Your task to perform on an android device: Clear all items from cart on ebay.com. Search for "lenovo thinkpad" on ebay.com, select the first entry, and add it to the cart. Image 0: 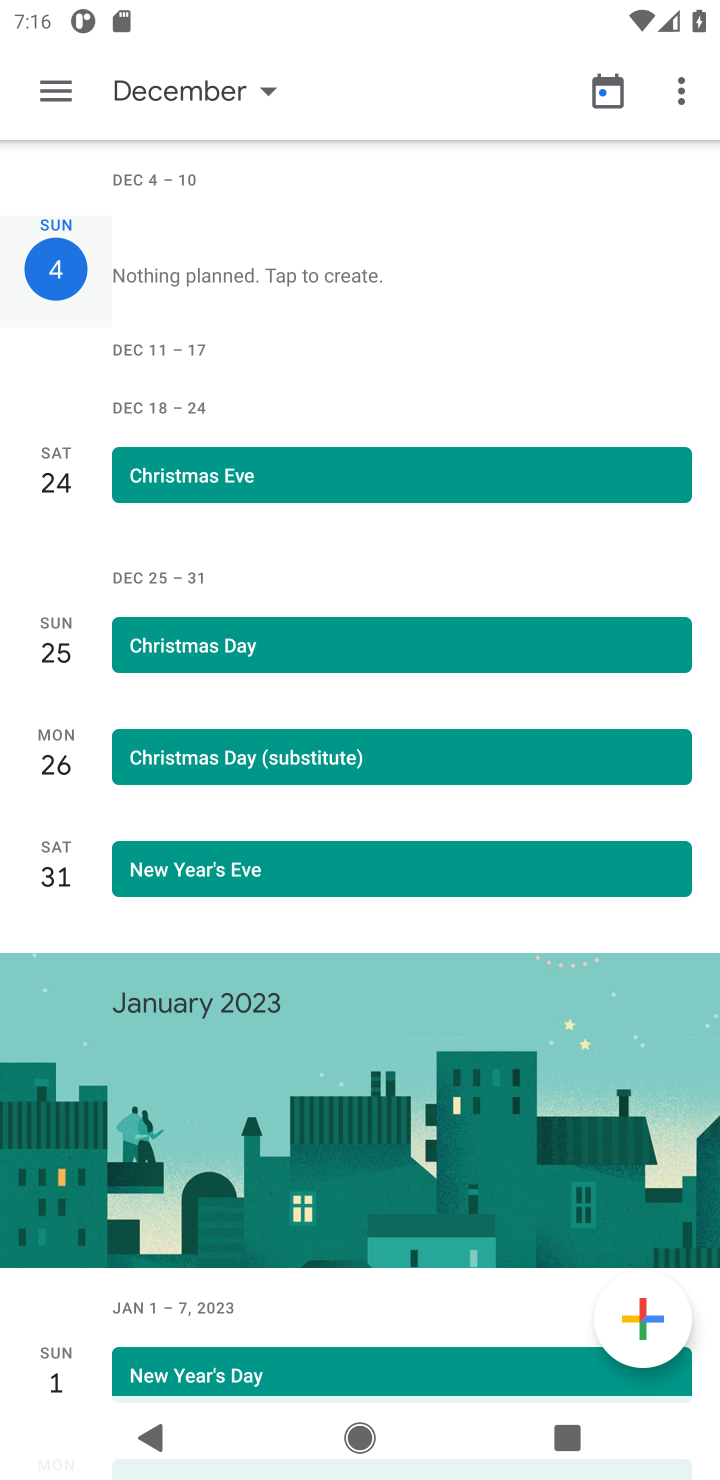
Step 0: press home button
Your task to perform on an android device: Clear all items from cart on ebay.com. Search for "lenovo thinkpad" on ebay.com, select the first entry, and add it to the cart. Image 1: 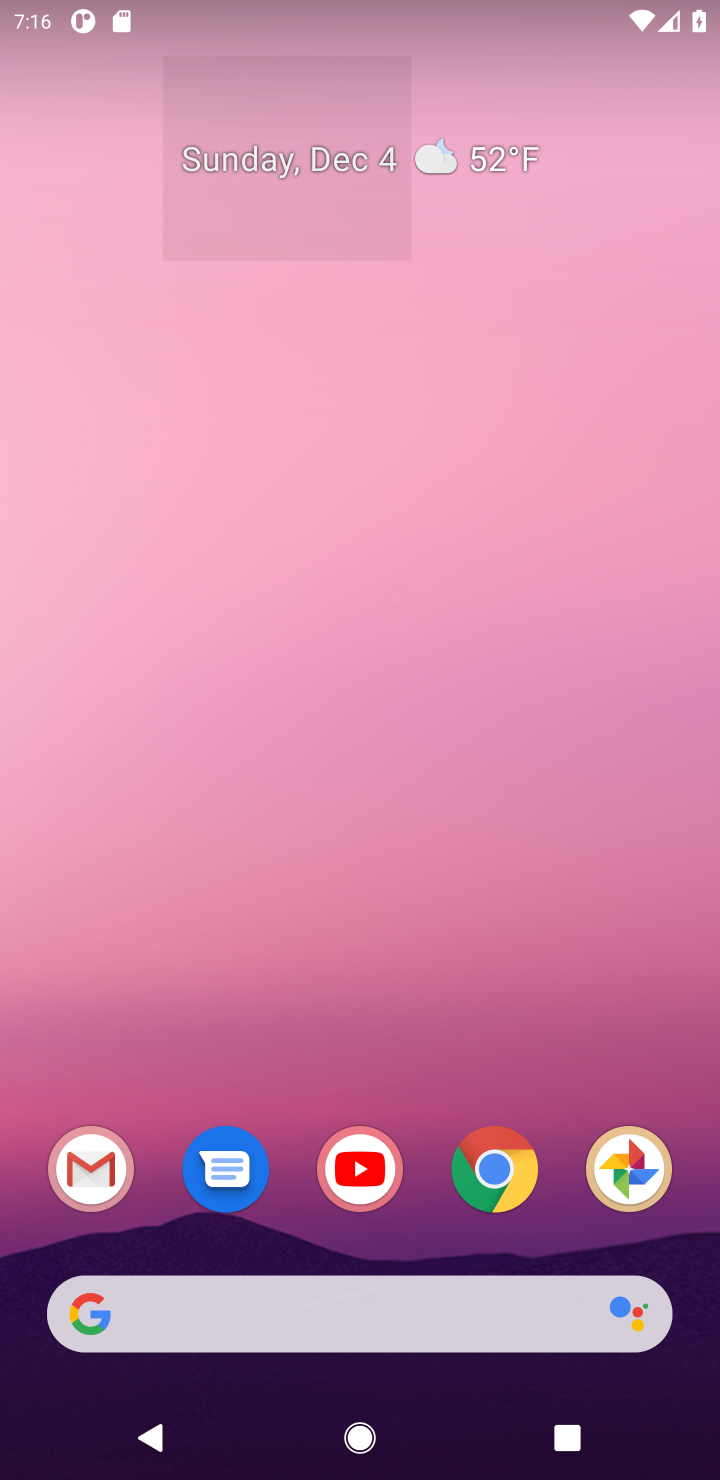
Step 1: click (488, 1177)
Your task to perform on an android device: Clear all items from cart on ebay.com. Search for "lenovo thinkpad" on ebay.com, select the first entry, and add it to the cart. Image 2: 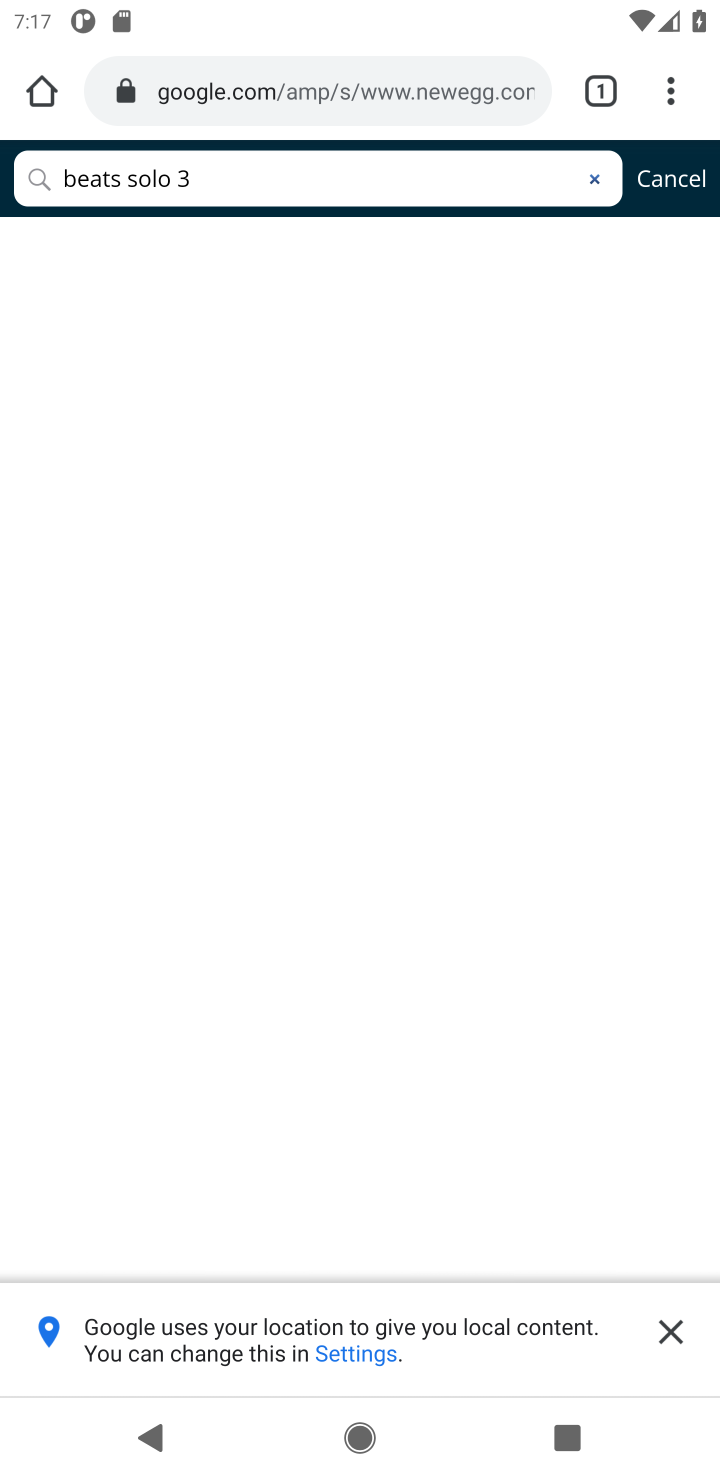
Step 2: click (431, 92)
Your task to perform on an android device: Clear all items from cart on ebay.com. Search for "lenovo thinkpad" on ebay.com, select the first entry, and add it to the cart. Image 3: 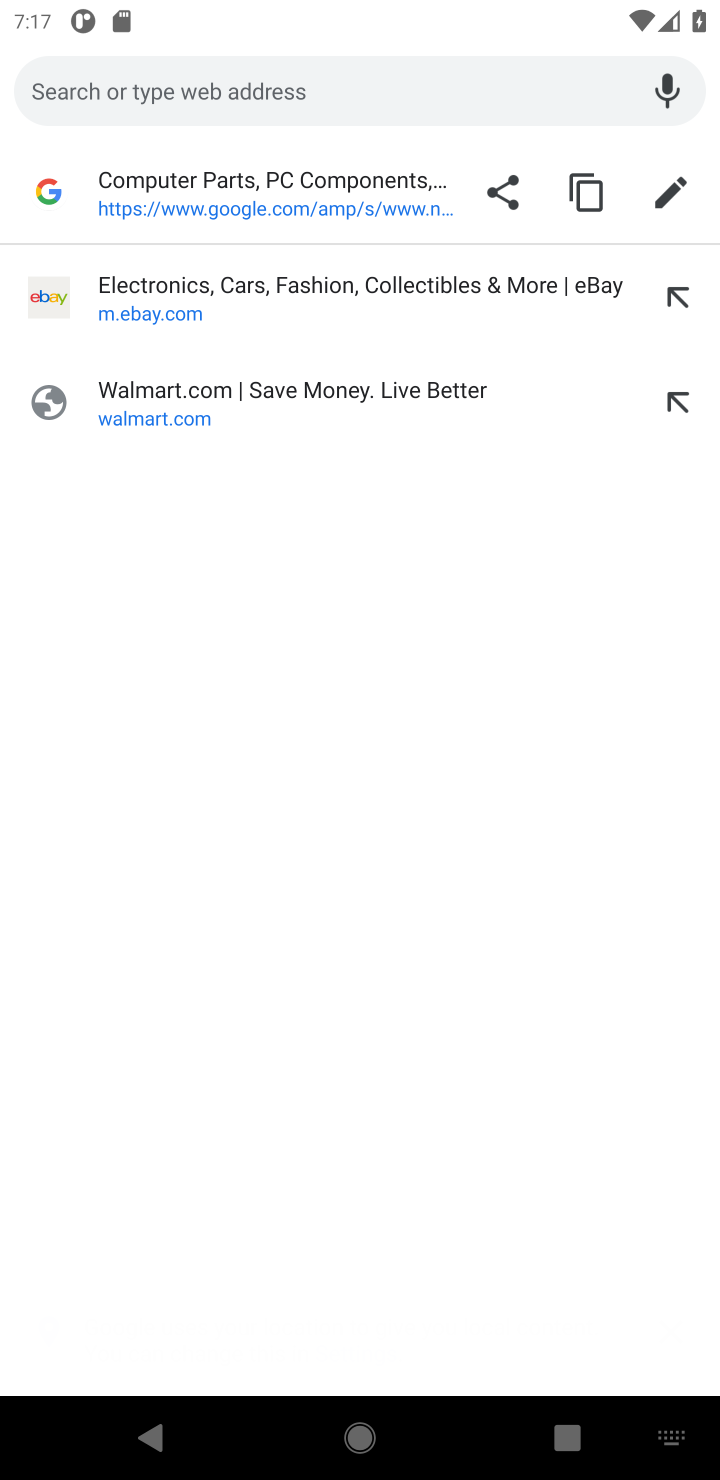
Step 3: click (233, 316)
Your task to perform on an android device: Clear all items from cart on ebay.com. Search for "lenovo thinkpad" on ebay.com, select the first entry, and add it to the cart. Image 4: 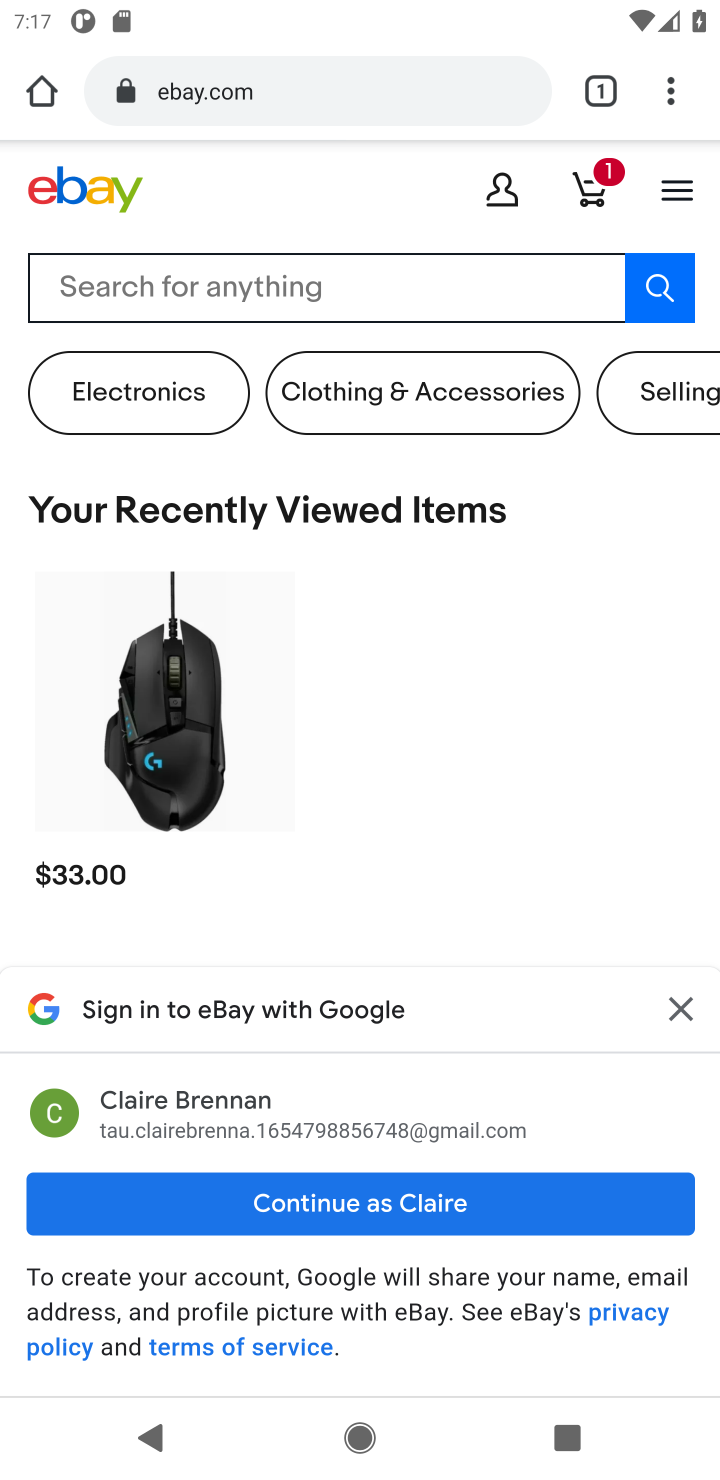
Step 4: click (599, 183)
Your task to perform on an android device: Clear all items from cart on ebay.com. Search for "lenovo thinkpad" on ebay.com, select the first entry, and add it to the cart. Image 5: 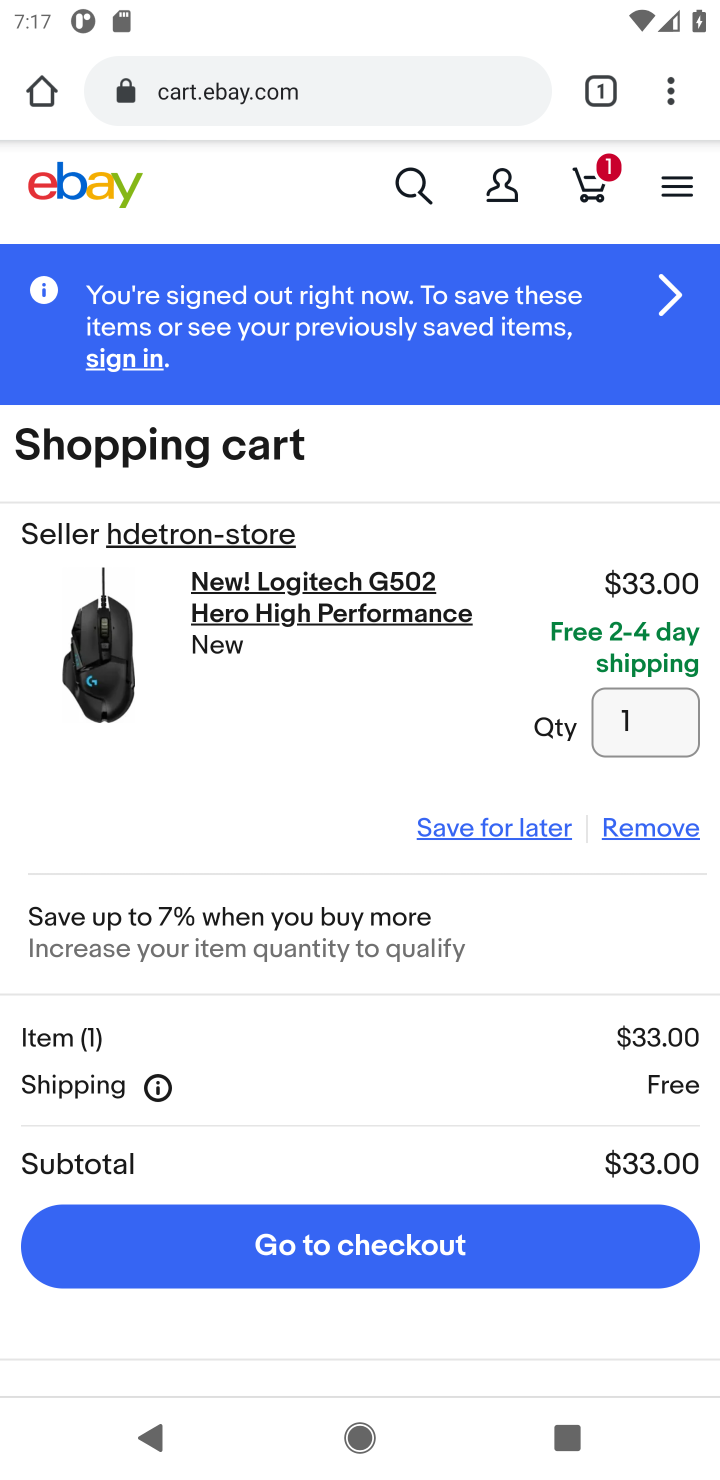
Step 5: click (625, 837)
Your task to perform on an android device: Clear all items from cart on ebay.com. Search for "lenovo thinkpad" on ebay.com, select the first entry, and add it to the cart. Image 6: 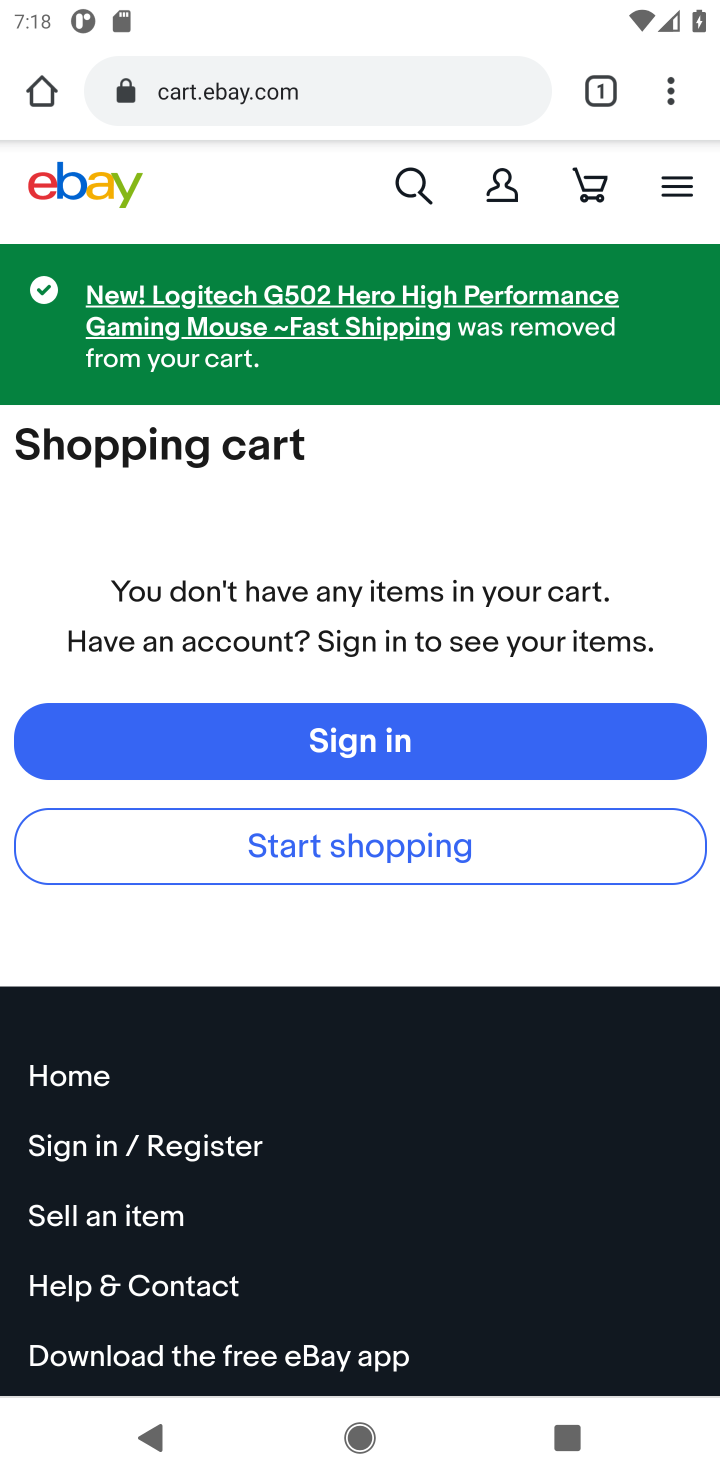
Step 6: click (66, 188)
Your task to perform on an android device: Clear all items from cart on ebay.com. Search for "lenovo thinkpad" on ebay.com, select the first entry, and add it to the cart. Image 7: 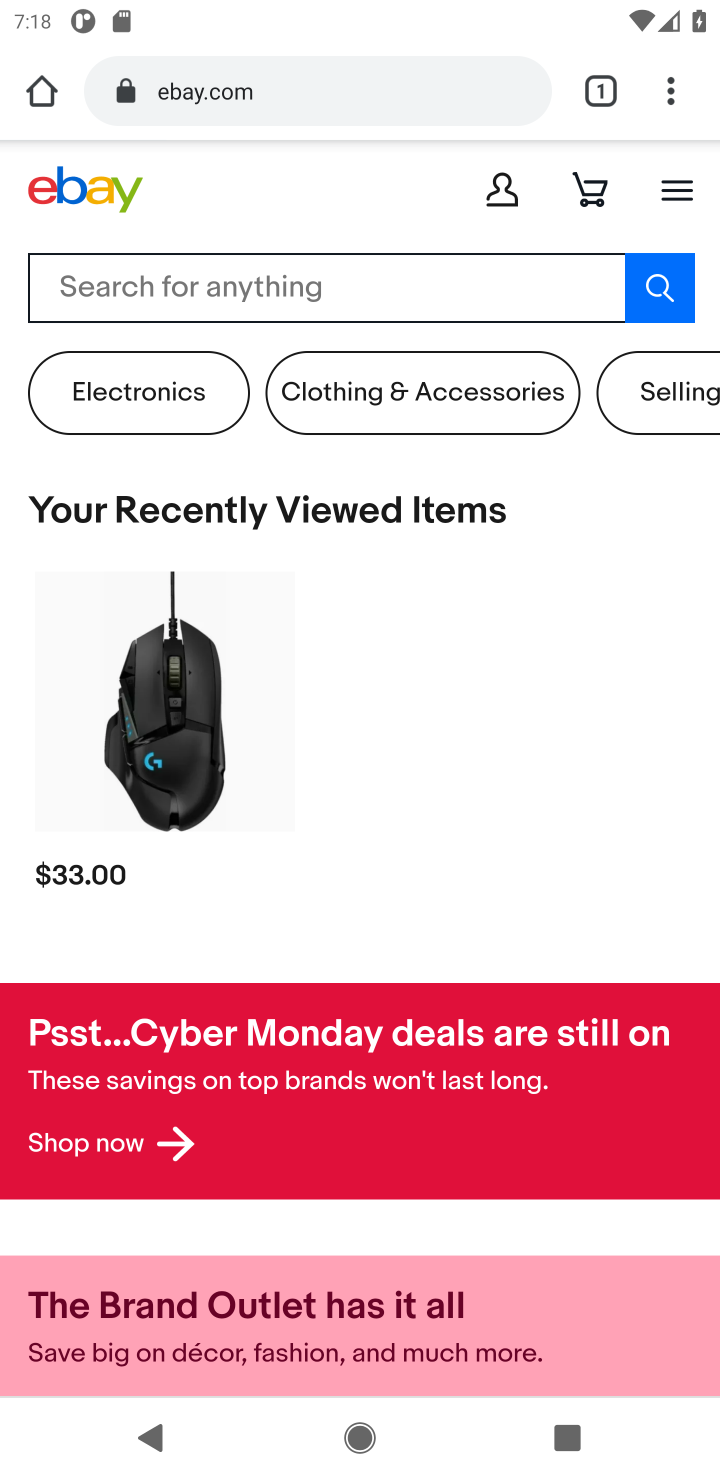
Step 7: click (364, 277)
Your task to perform on an android device: Clear all items from cart on ebay.com. Search for "lenovo thinkpad" on ebay.com, select the first entry, and add it to the cart. Image 8: 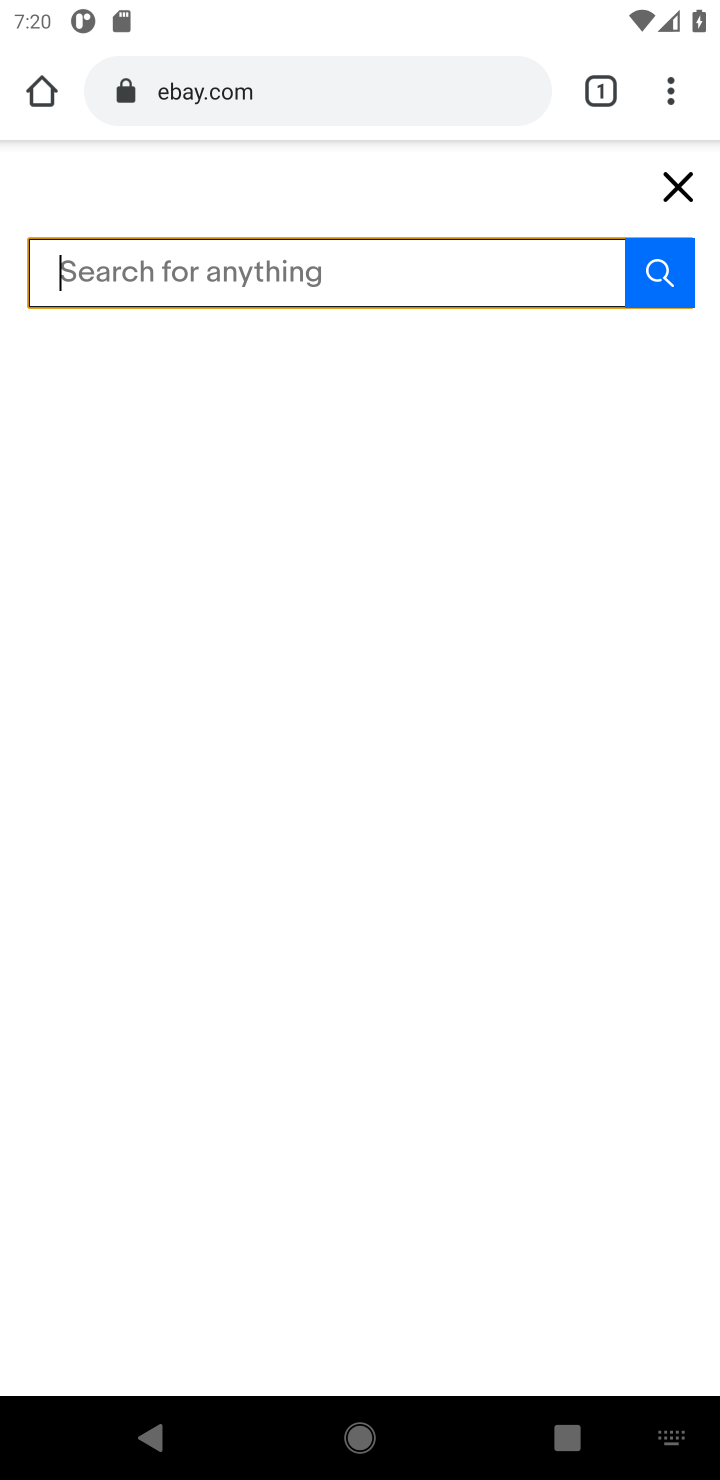
Step 8: type "lenovo thinkpad"
Your task to perform on an android device: Clear all items from cart on ebay.com. Search for "lenovo thinkpad" on ebay.com, select the first entry, and add it to the cart. Image 9: 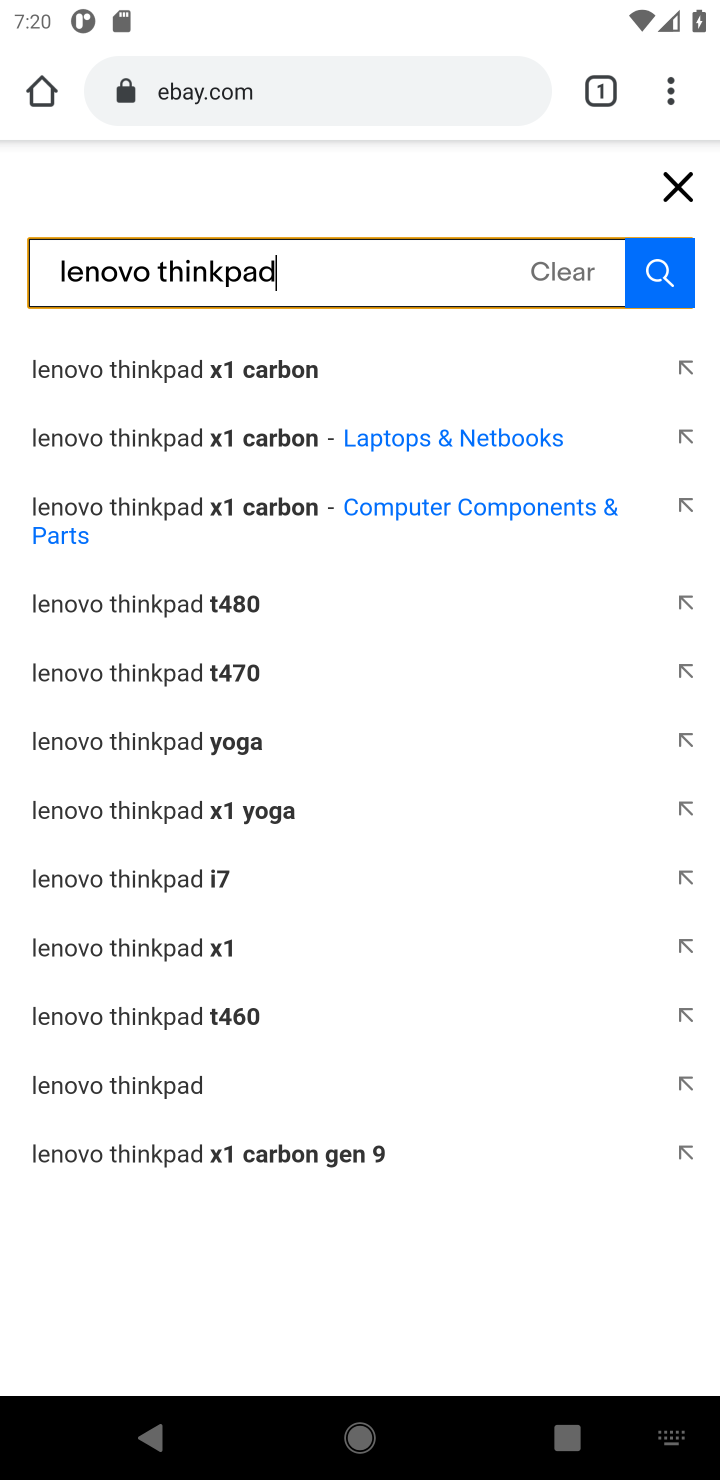
Step 9: click (169, 382)
Your task to perform on an android device: Clear all items from cart on ebay.com. Search for "lenovo thinkpad" on ebay.com, select the first entry, and add it to the cart. Image 10: 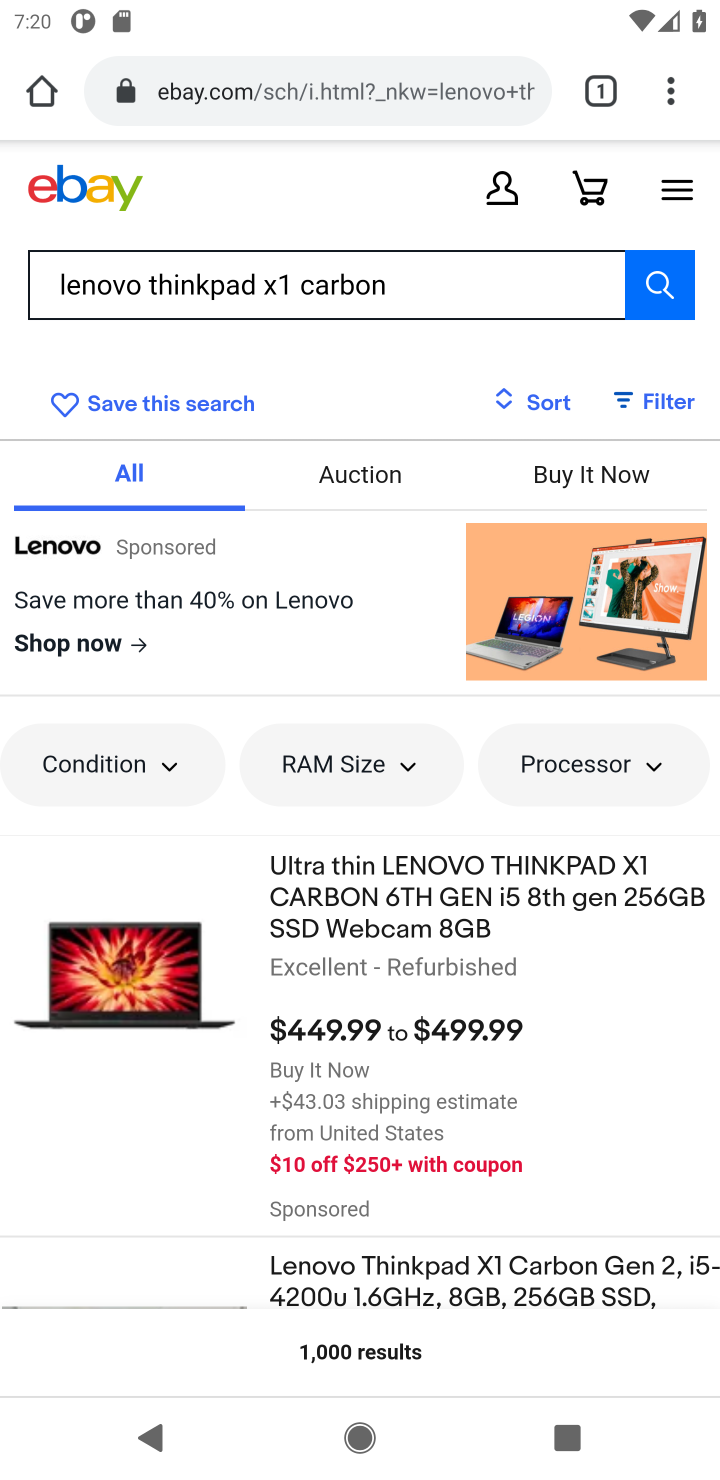
Step 10: click (419, 946)
Your task to perform on an android device: Clear all items from cart on ebay.com. Search for "lenovo thinkpad" on ebay.com, select the first entry, and add it to the cart. Image 11: 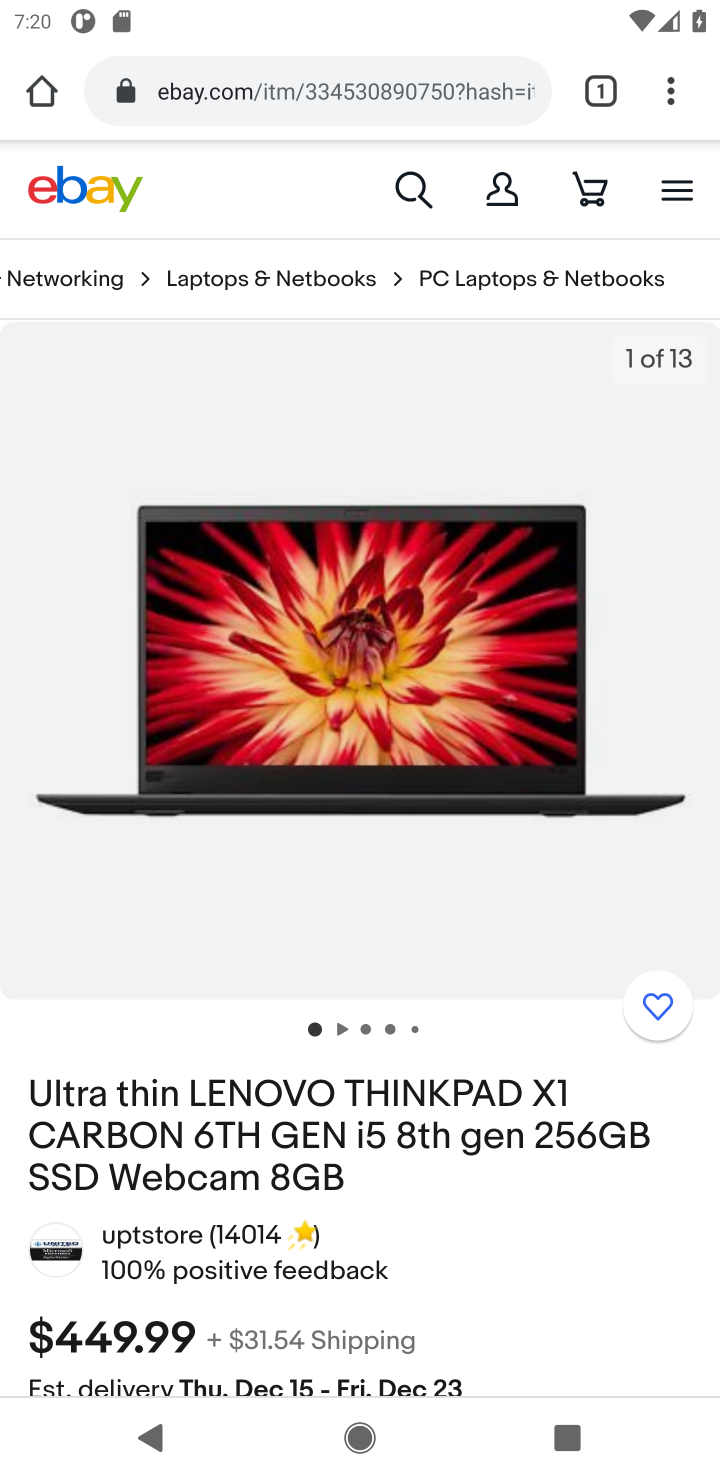
Step 11: drag from (440, 1293) to (400, 539)
Your task to perform on an android device: Clear all items from cart on ebay.com. Search for "lenovo thinkpad" on ebay.com, select the first entry, and add it to the cart. Image 12: 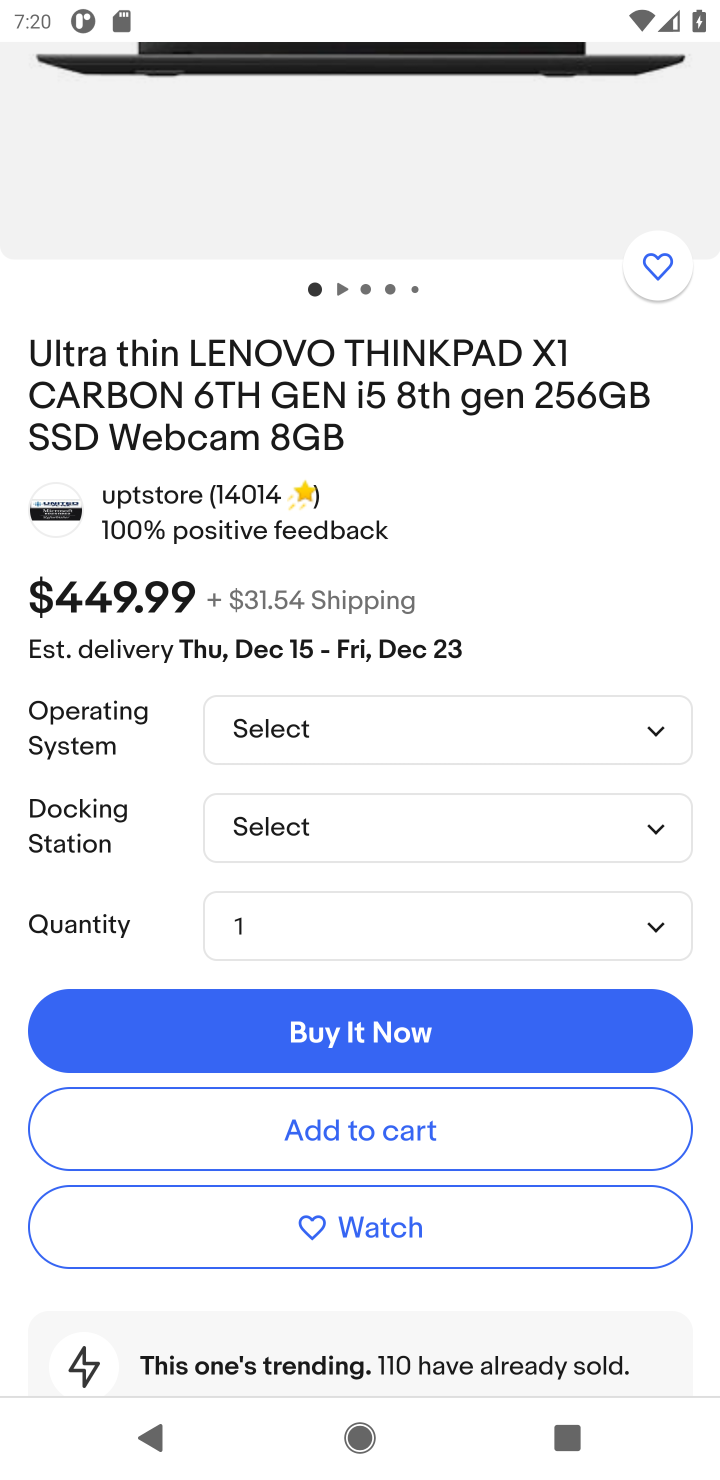
Step 12: click (332, 1137)
Your task to perform on an android device: Clear all items from cart on ebay.com. Search for "lenovo thinkpad" on ebay.com, select the first entry, and add it to the cart. Image 13: 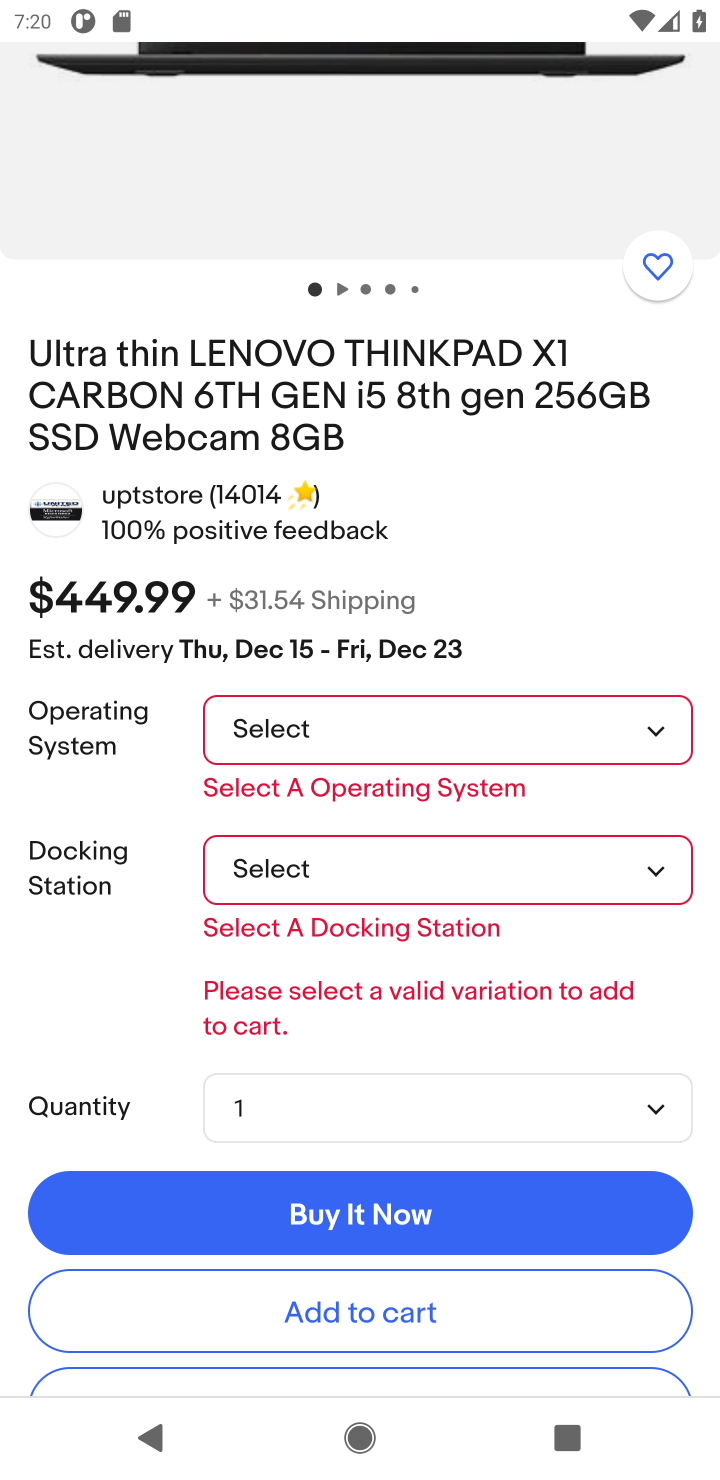
Step 13: task complete